Your task to perform on an android device: toggle improve location accuracy Image 0: 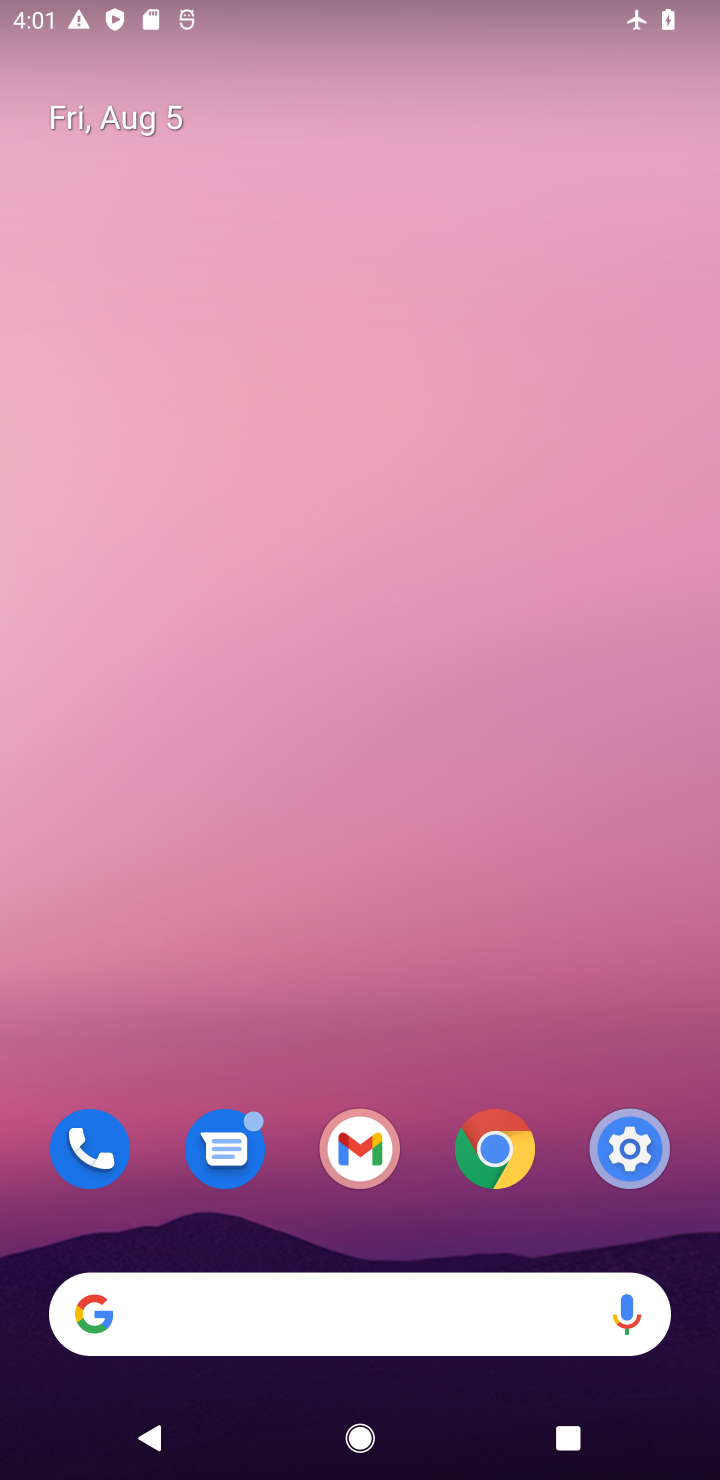
Step 0: drag from (305, 1247) to (547, 40)
Your task to perform on an android device: toggle improve location accuracy Image 1: 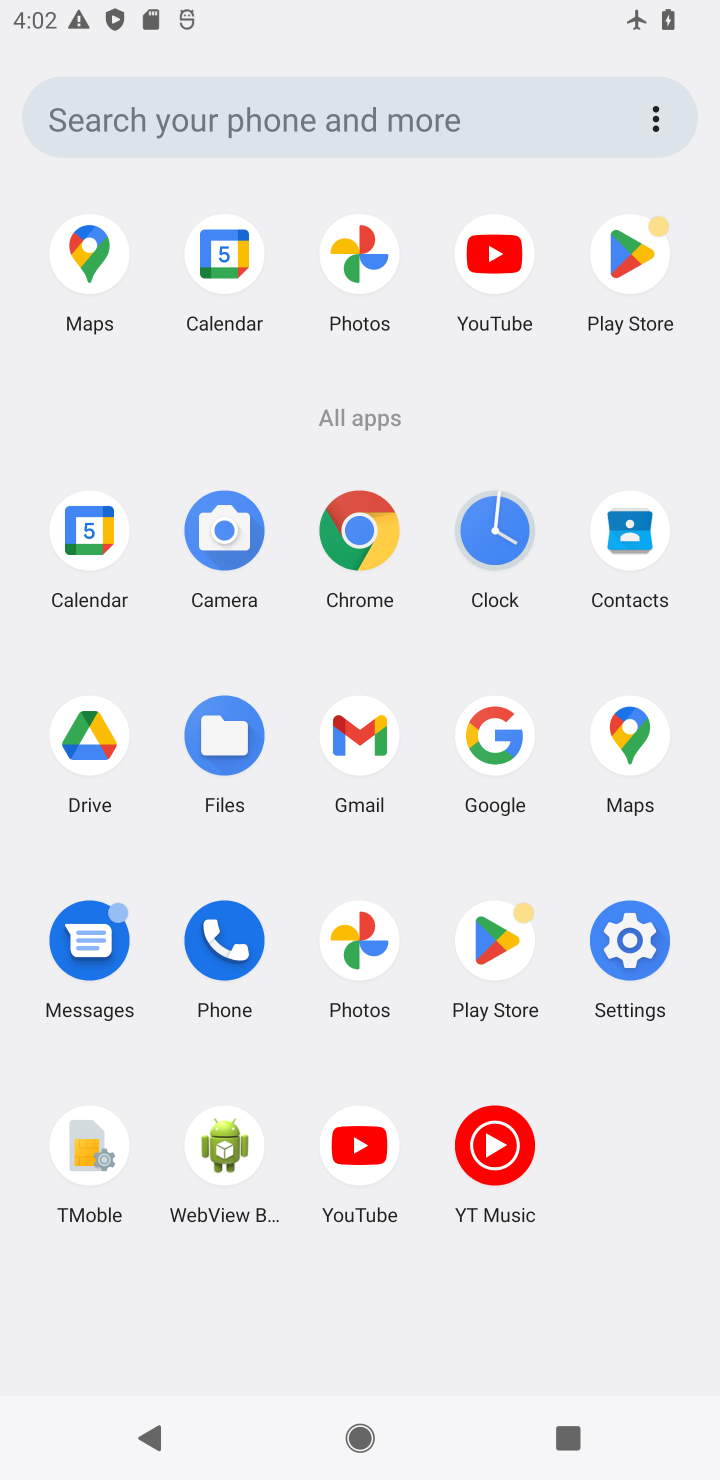
Step 1: click (614, 947)
Your task to perform on an android device: toggle improve location accuracy Image 2: 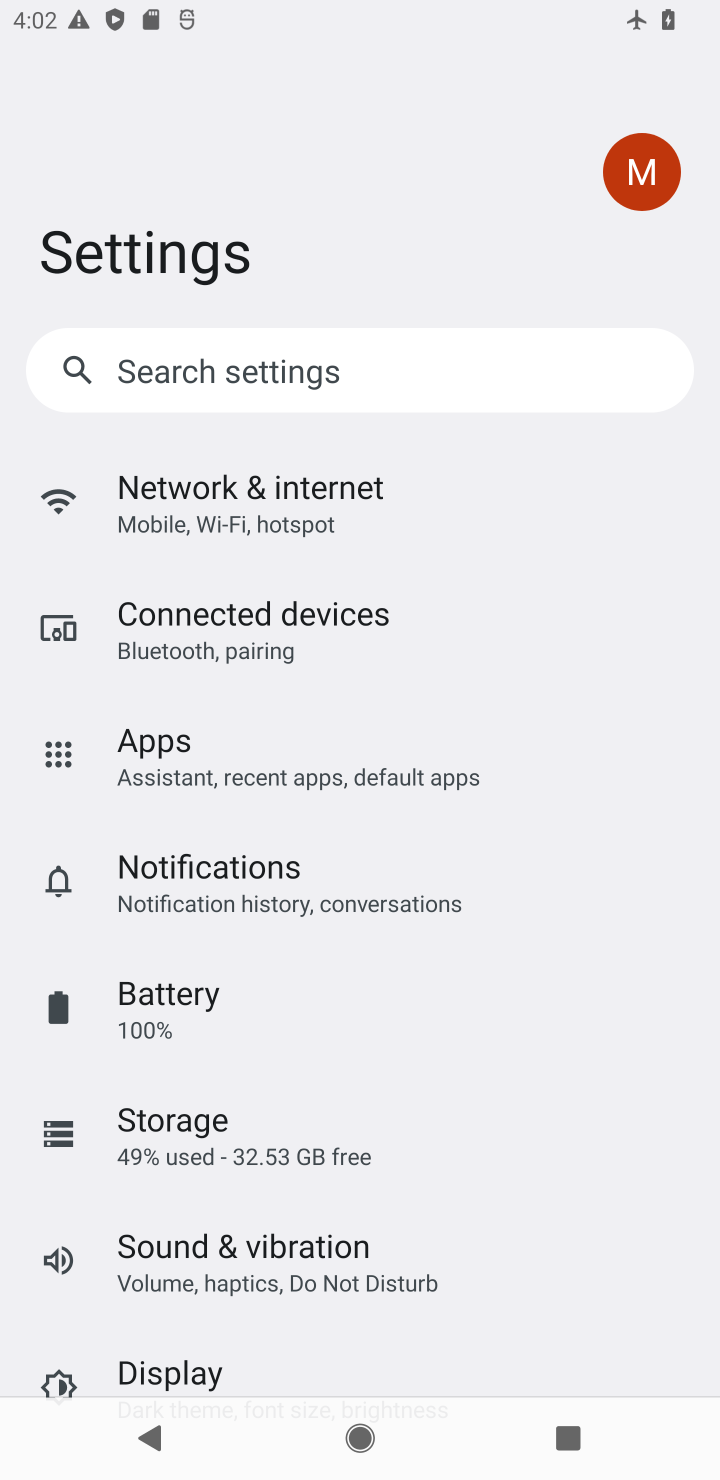
Step 2: drag from (232, 1379) to (459, 345)
Your task to perform on an android device: toggle improve location accuracy Image 3: 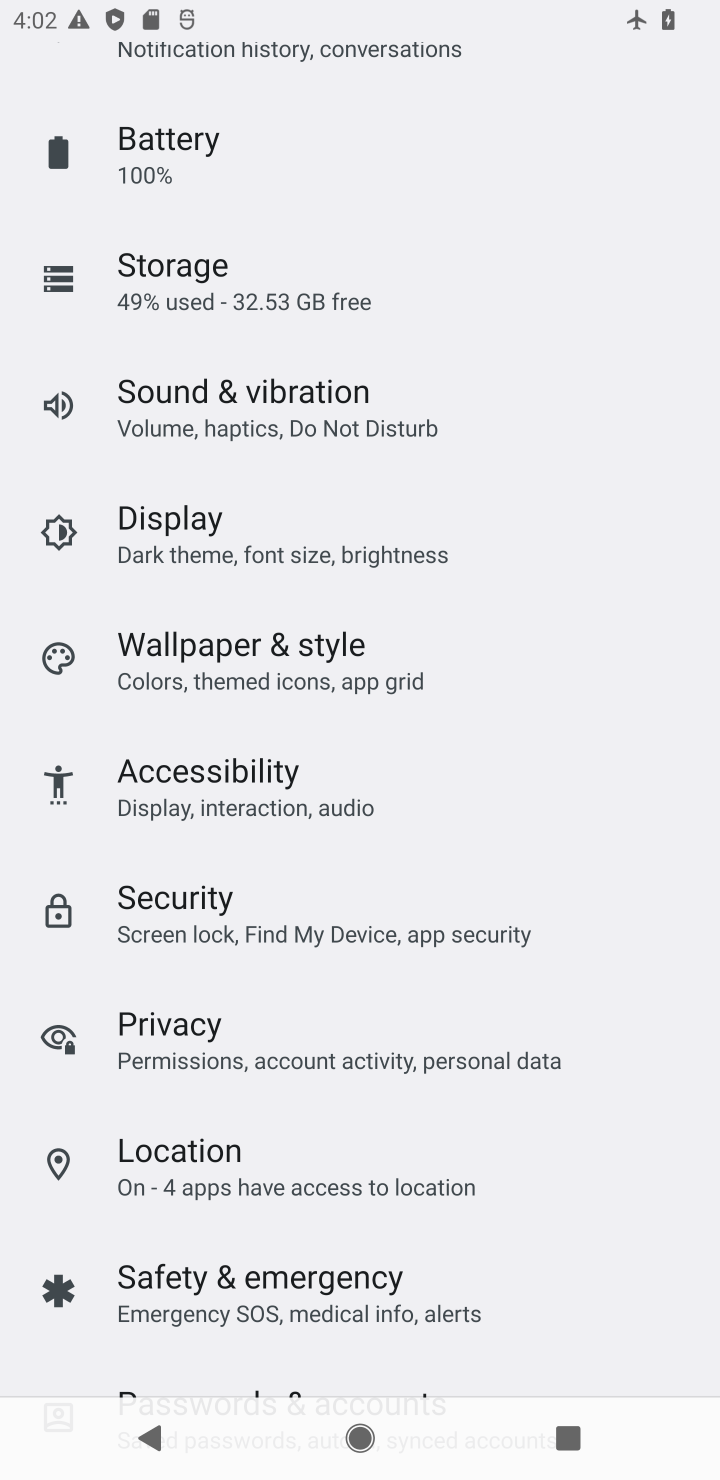
Step 3: click (293, 1150)
Your task to perform on an android device: toggle improve location accuracy Image 4: 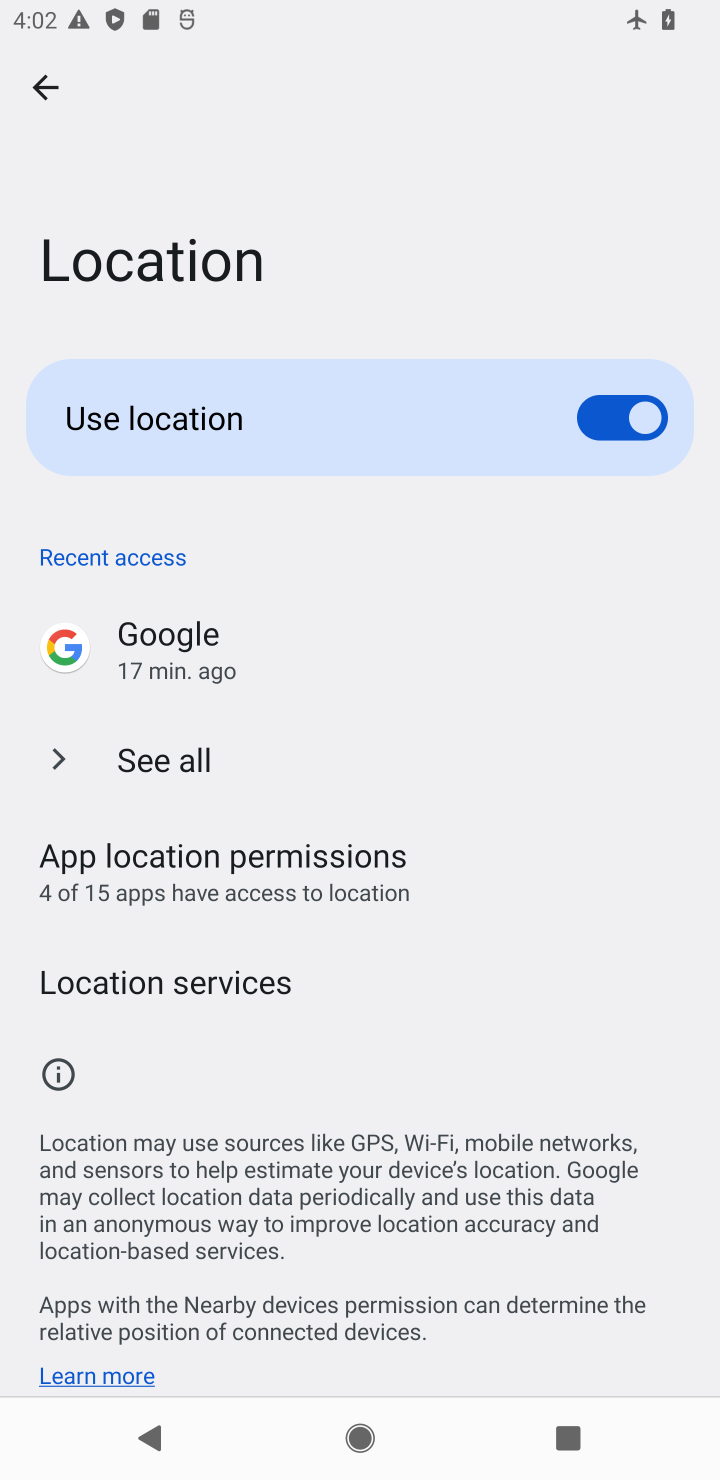
Step 4: click (138, 972)
Your task to perform on an android device: toggle improve location accuracy Image 5: 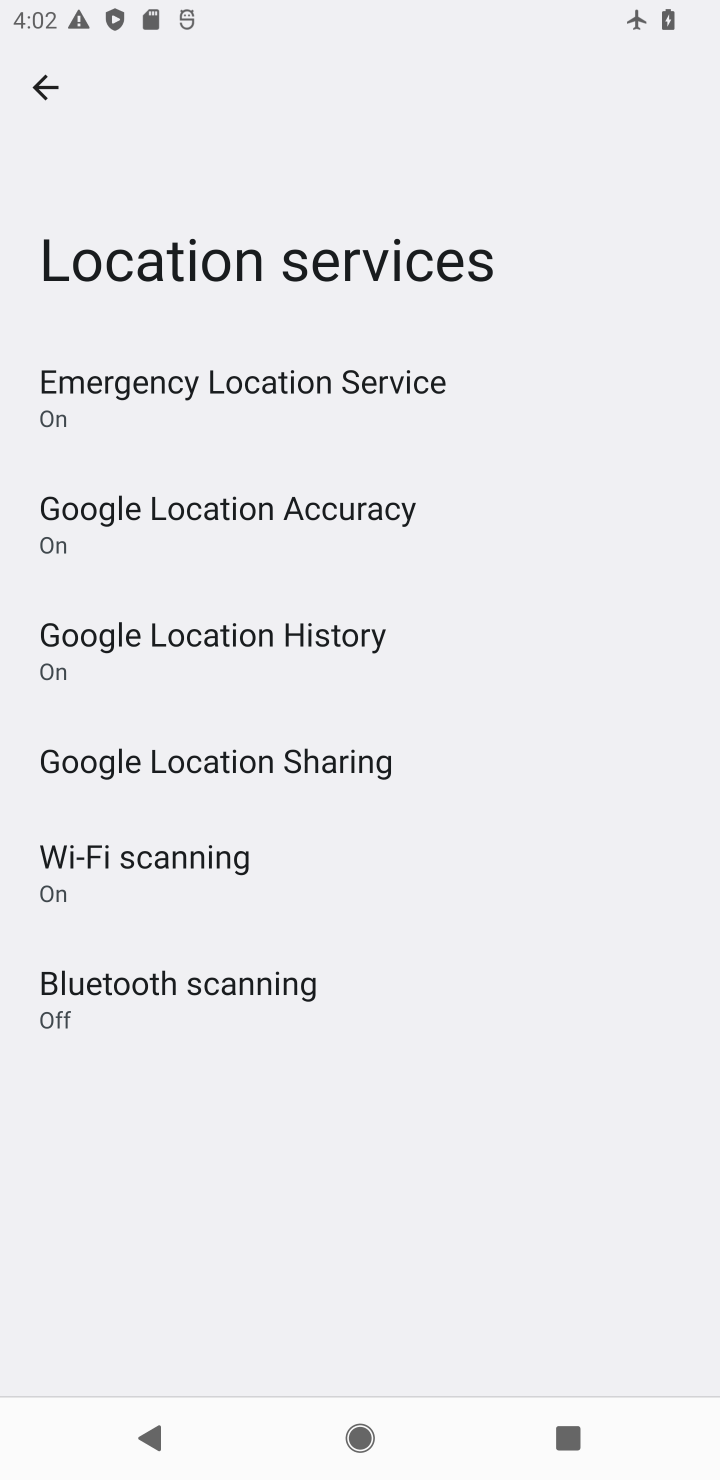
Step 5: click (218, 483)
Your task to perform on an android device: toggle improve location accuracy Image 6: 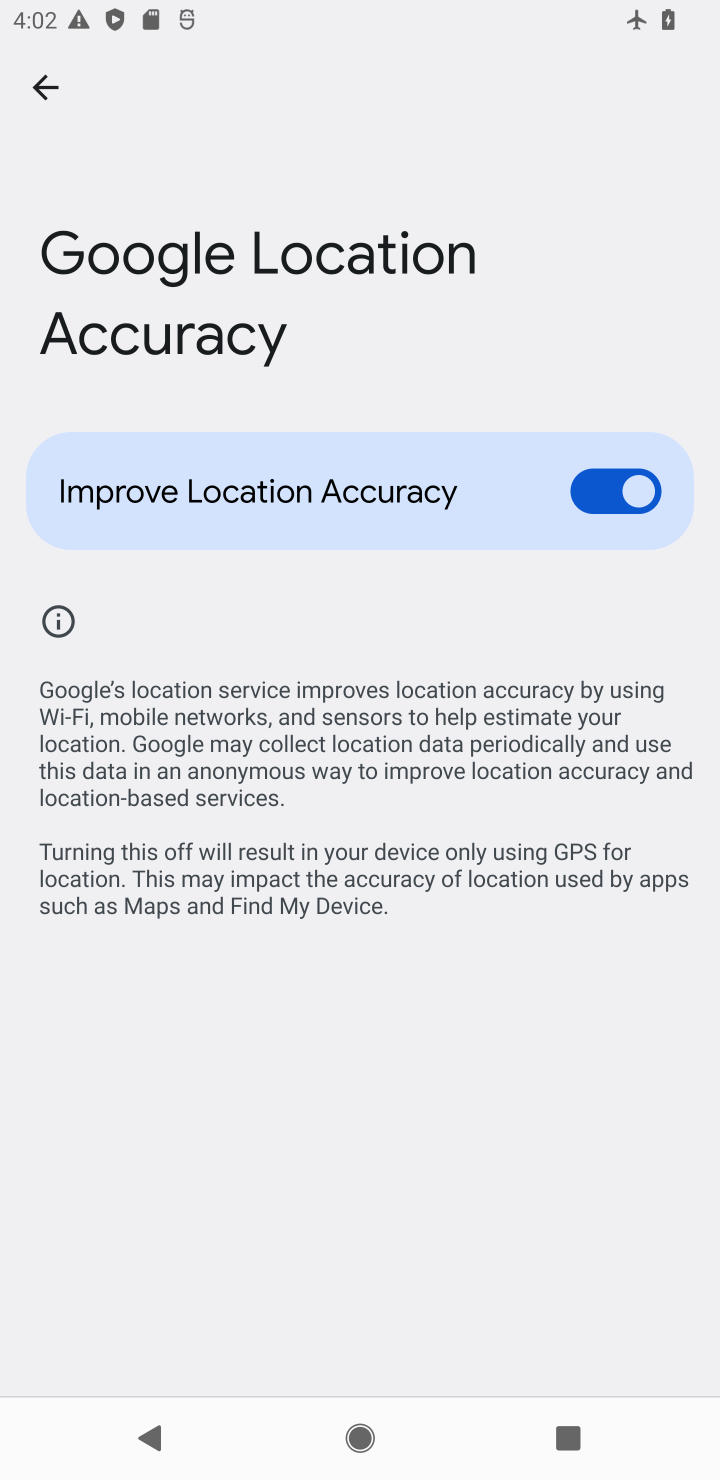
Step 6: task complete